Your task to perform on an android device: turn on javascript in the chrome app Image 0: 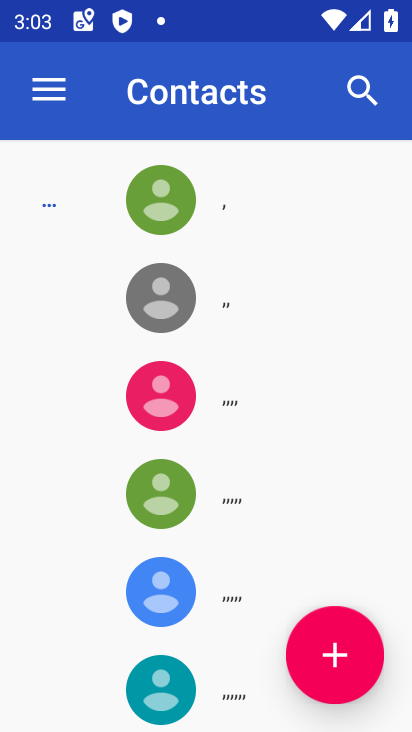
Step 0: press home button
Your task to perform on an android device: turn on javascript in the chrome app Image 1: 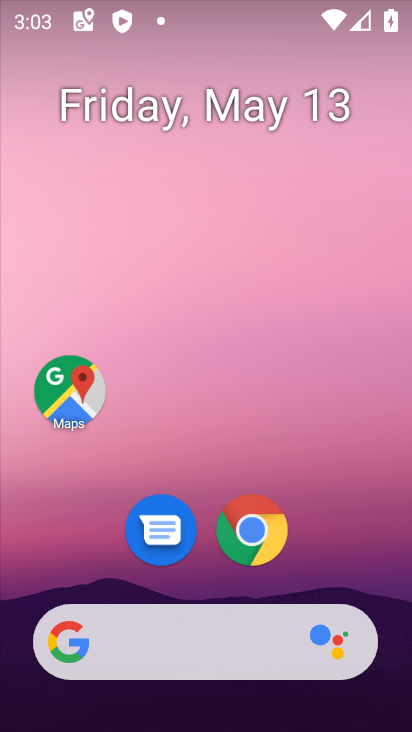
Step 1: click (252, 533)
Your task to perform on an android device: turn on javascript in the chrome app Image 2: 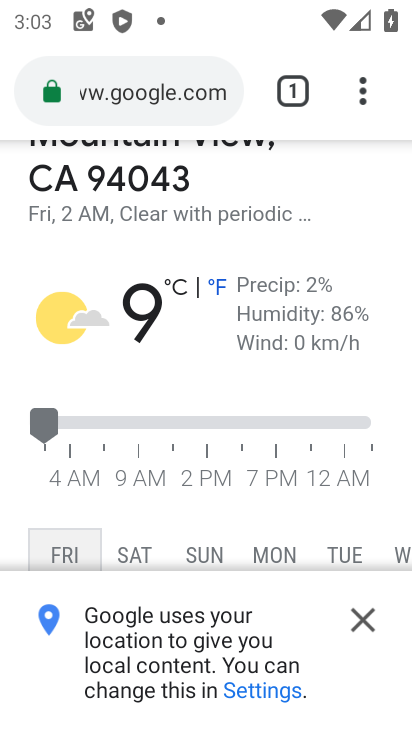
Step 2: click (364, 83)
Your task to perform on an android device: turn on javascript in the chrome app Image 3: 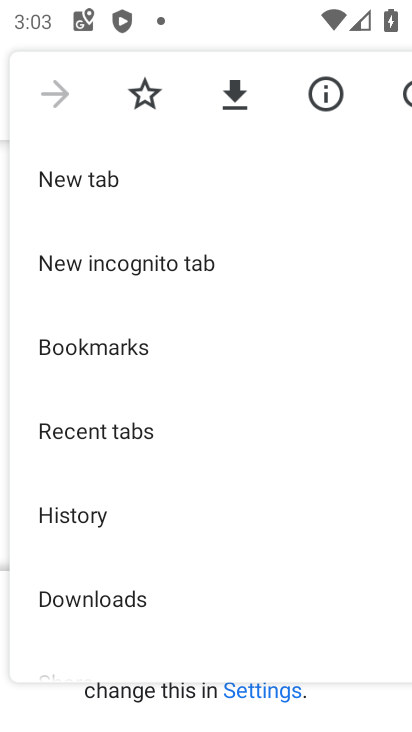
Step 3: drag from (205, 579) to (250, 108)
Your task to perform on an android device: turn on javascript in the chrome app Image 4: 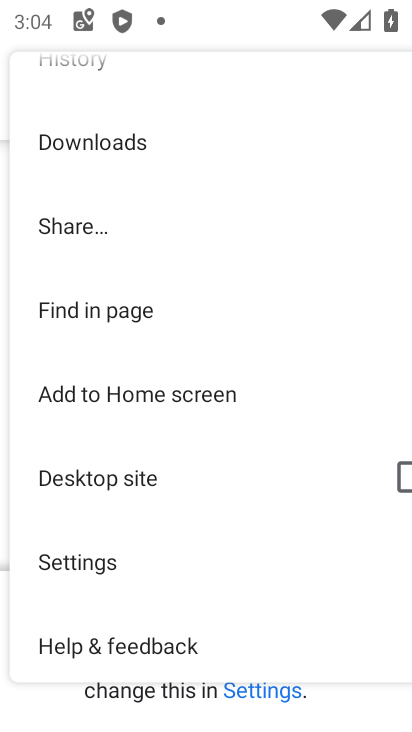
Step 4: click (95, 553)
Your task to perform on an android device: turn on javascript in the chrome app Image 5: 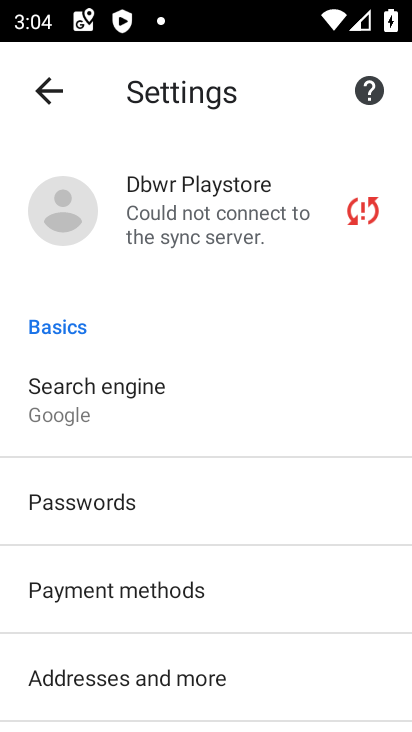
Step 5: drag from (264, 590) to (243, 120)
Your task to perform on an android device: turn on javascript in the chrome app Image 6: 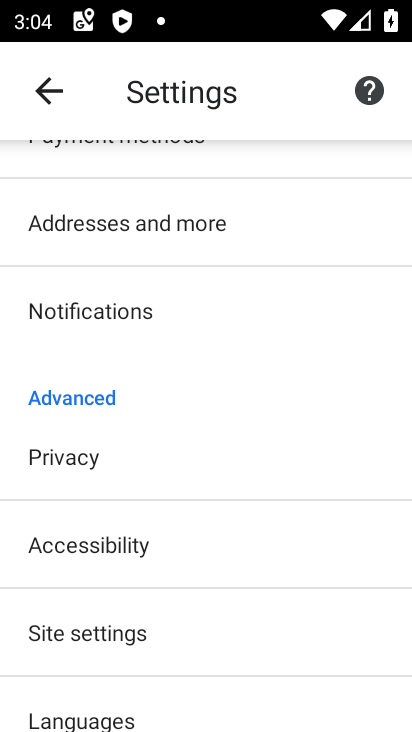
Step 6: drag from (198, 564) to (284, 187)
Your task to perform on an android device: turn on javascript in the chrome app Image 7: 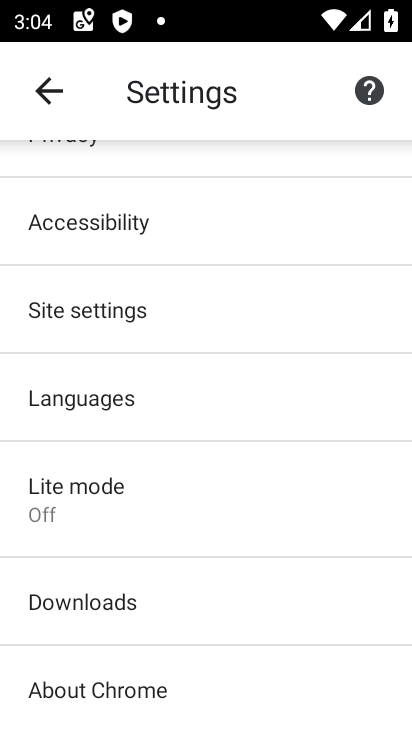
Step 7: drag from (182, 559) to (258, 273)
Your task to perform on an android device: turn on javascript in the chrome app Image 8: 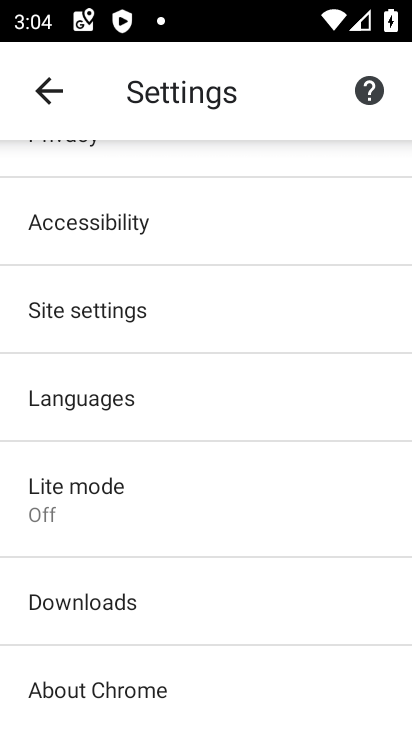
Step 8: click (153, 314)
Your task to perform on an android device: turn on javascript in the chrome app Image 9: 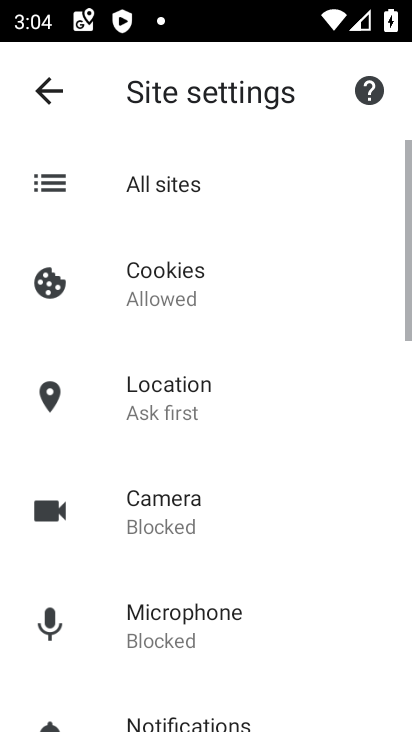
Step 9: drag from (222, 597) to (300, 236)
Your task to perform on an android device: turn on javascript in the chrome app Image 10: 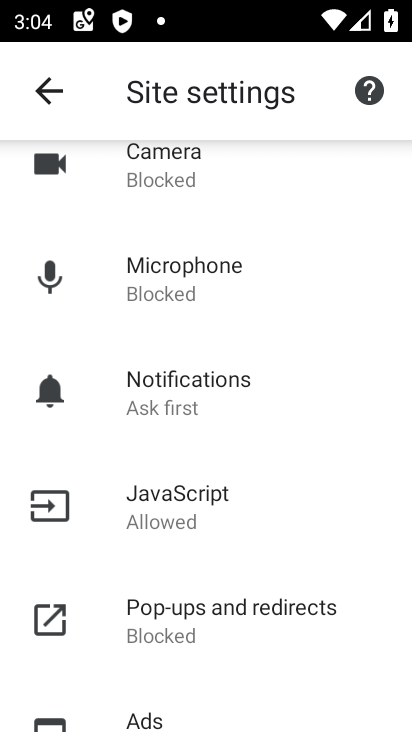
Step 10: click (208, 510)
Your task to perform on an android device: turn on javascript in the chrome app Image 11: 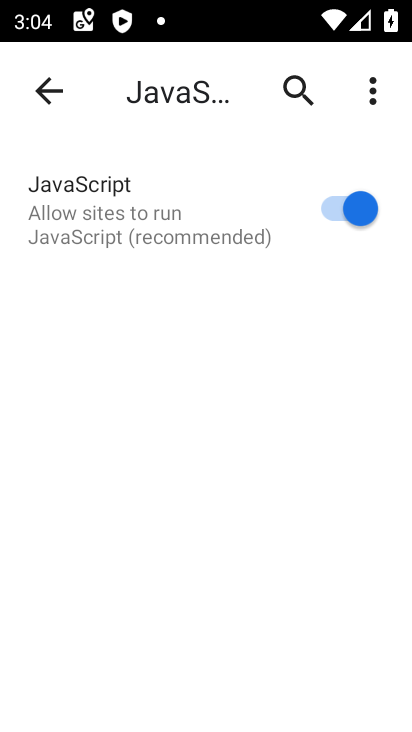
Step 11: task complete